Your task to perform on an android device: open app "Firefox Browser" Image 0: 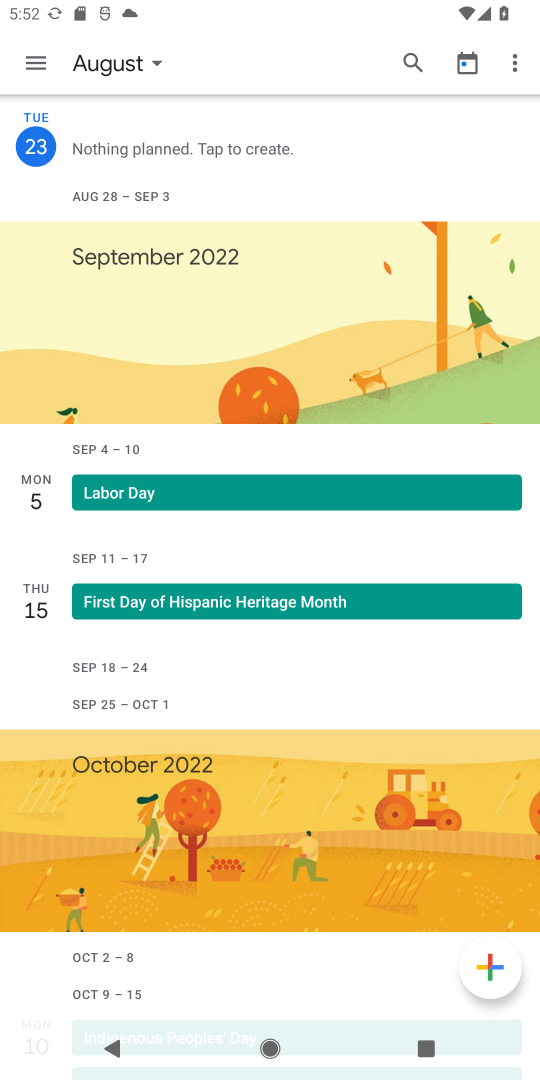
Step 0: press home button
Your task to perform on an android device: open app "Firefox Browser" Image 1: 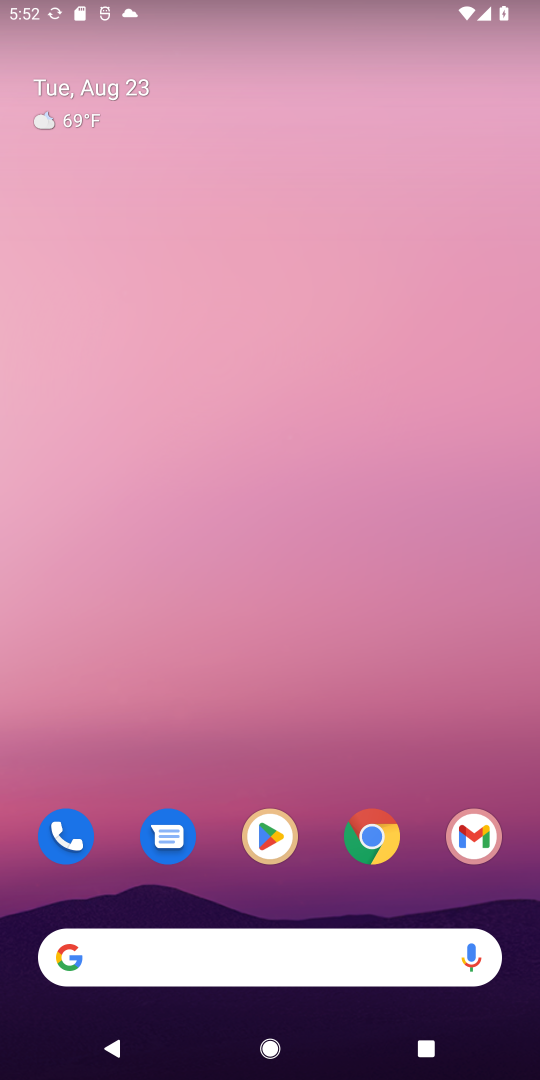
Step 1: click (269, 834)
Your task to perform on an android device: open app "Firefox Browser" Image 2: 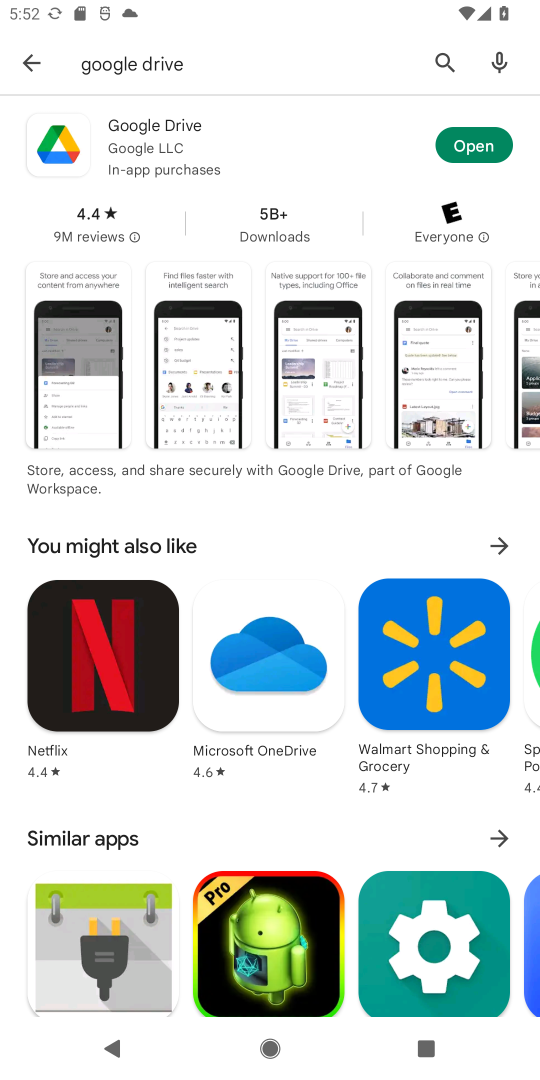
Step 2: click (445, 58)
Your task to perform on an android device: open app "Firefox Browser" Image 3: 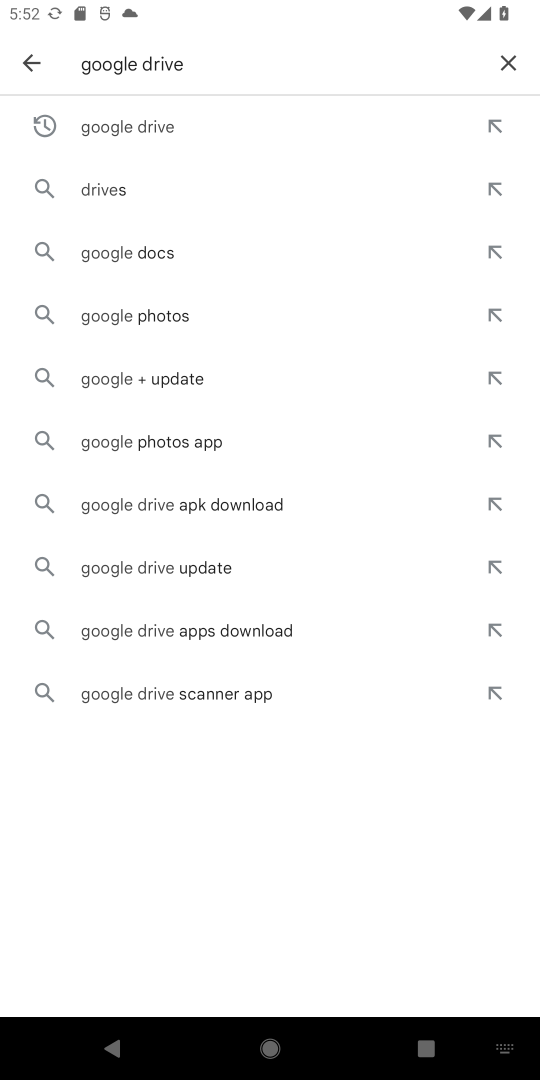
Step 3: click (509, 57)
Your task to perform on an android device: open app "Firefox Browser" Image 4: 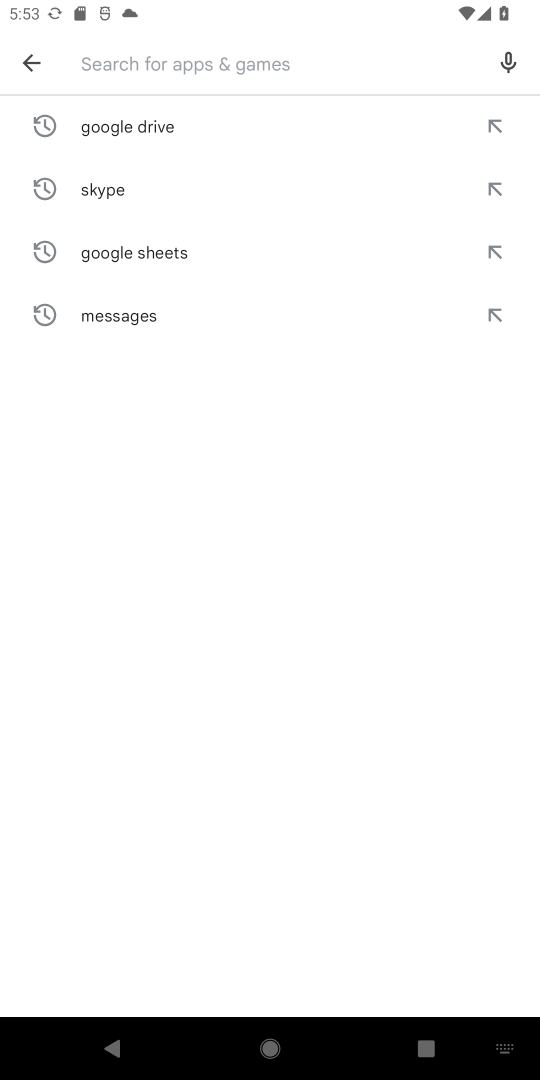
Step 4: type "Firefox Browse"
Your task to perform on an android device: open app "Firefox Browser" Image 5: 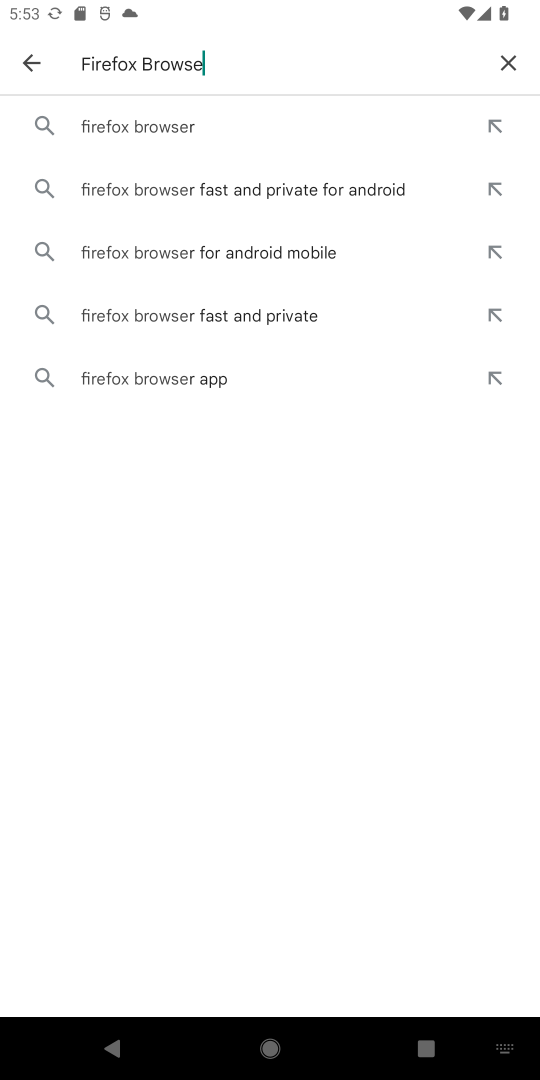
Step 5: click (132, 116)
Your task to perform on an android device: open app "Firefox Browser" Image 6: 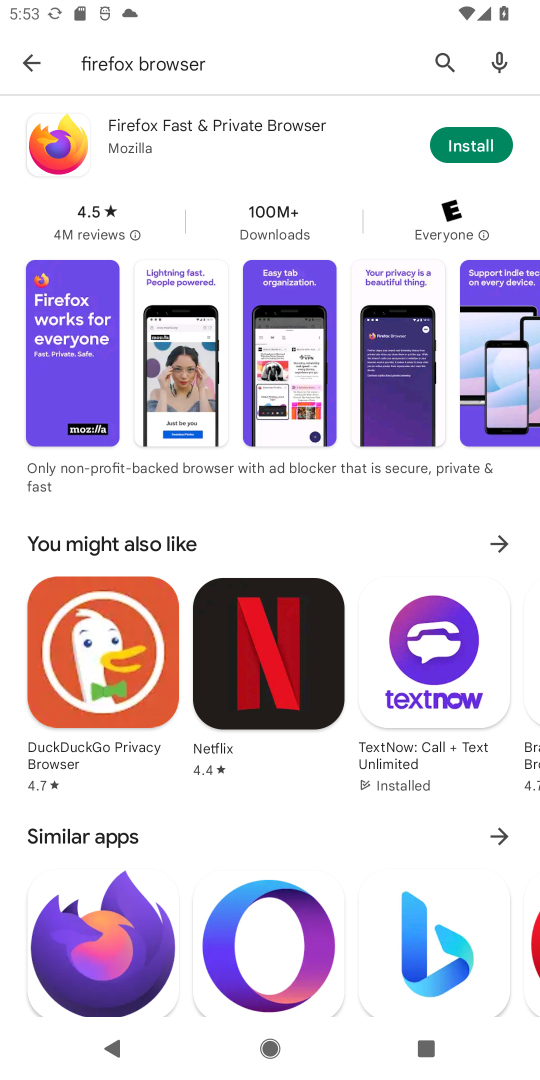
Step 6: task complete